Your task to perform on an android device: Go to CNN.com Image 0: 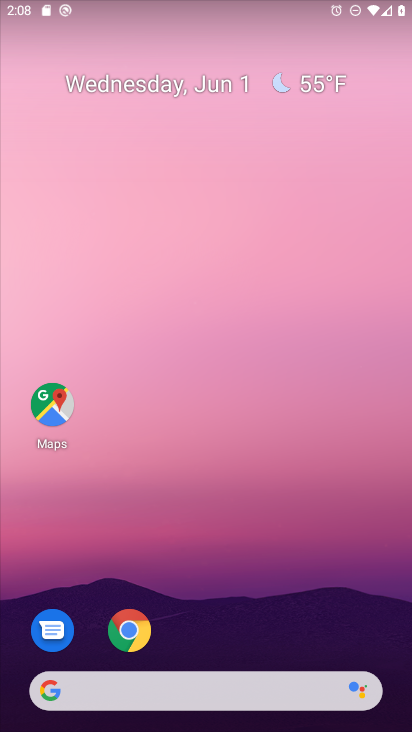
Step 0: click (124, 151)
Your task to perform on an android device: Go to CNN.com Image 1: 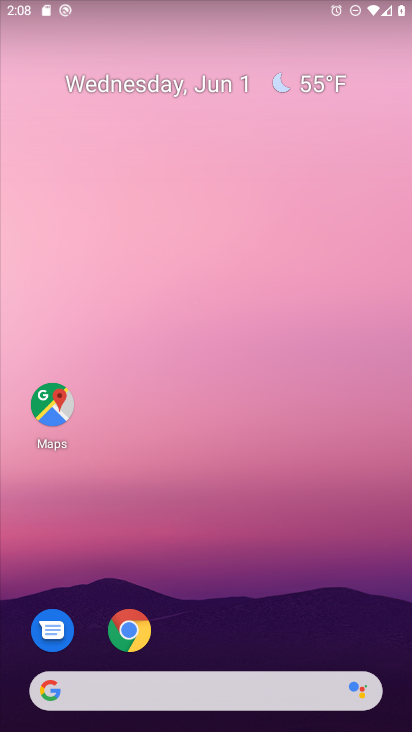
Step 1: drag from (231, 666) to (255, 26)
Your task to perform on an android device: Go to CNN.com Image 2: 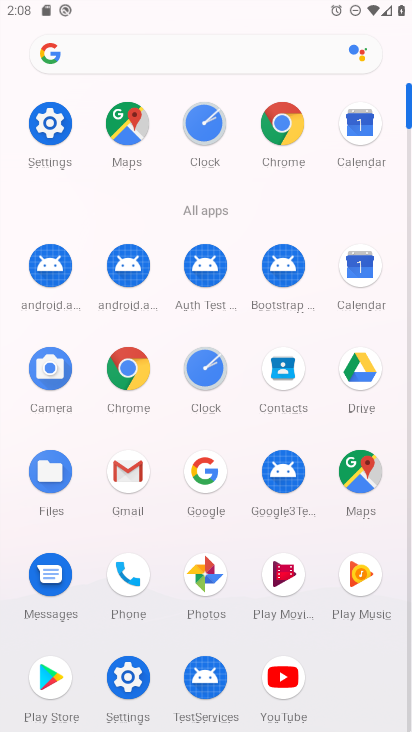
Step 2: click (120, 355)
Your task to perform on an android device: Go to CNN.com Image 3: 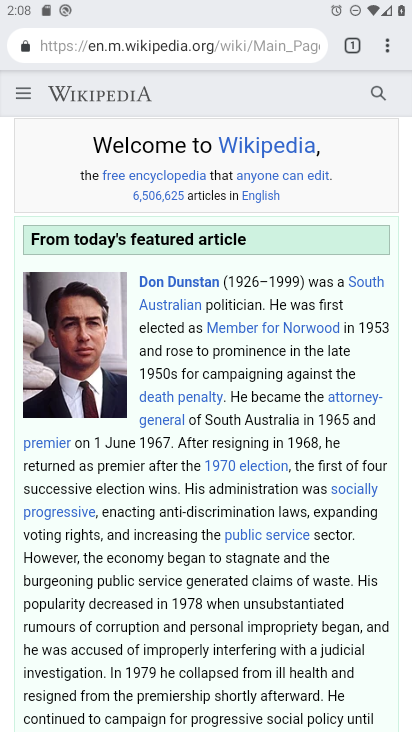
Step 3: click (230, 46)
Your task to perform on an android device: Go to CNN.com Image 4: 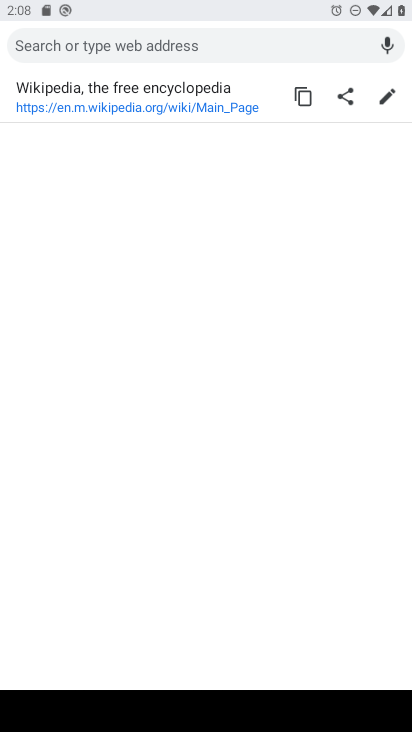
Step 4: type "cnn.com"
Your task to perform on an android device: Go to CNN.com Image 5: 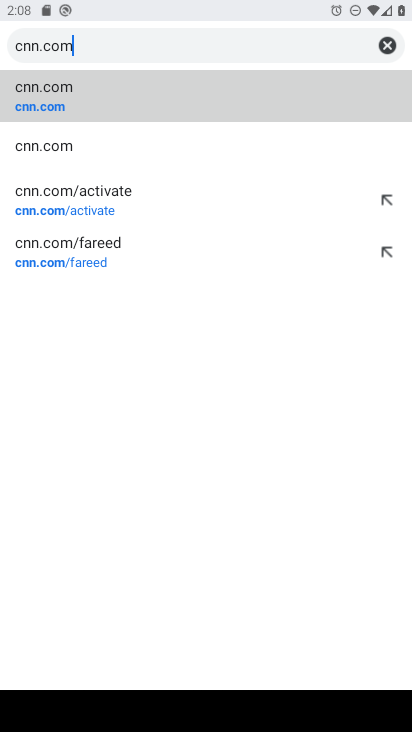
Step 5: click (221, 114)
Your task to perform on an android device: Go to CNN.com Image 6: 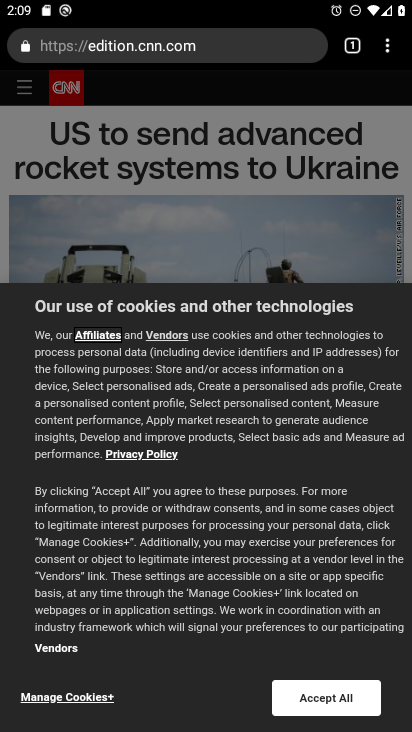
Step 6: task complete